Your task to perform on an android device: check out phone information Image 0: 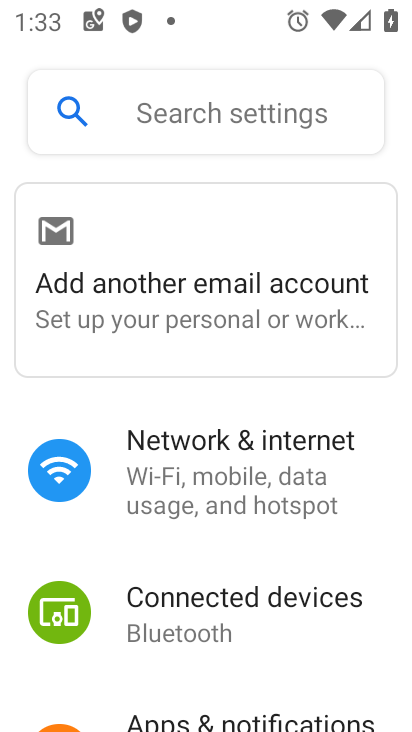
Step 0: drag from (214, 541) to (254, 448)
Your task to perform on an android device: check out phone information Image 1: 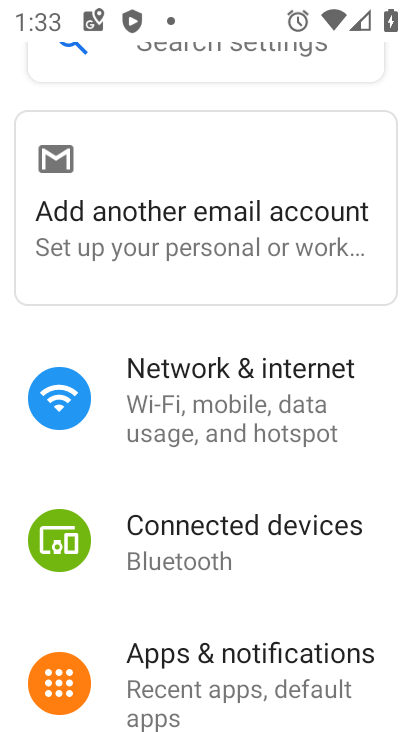
Step 1: drag from (245, 574) to (297, 462)
Your task to perform on an android device: check out phone information Image 2: 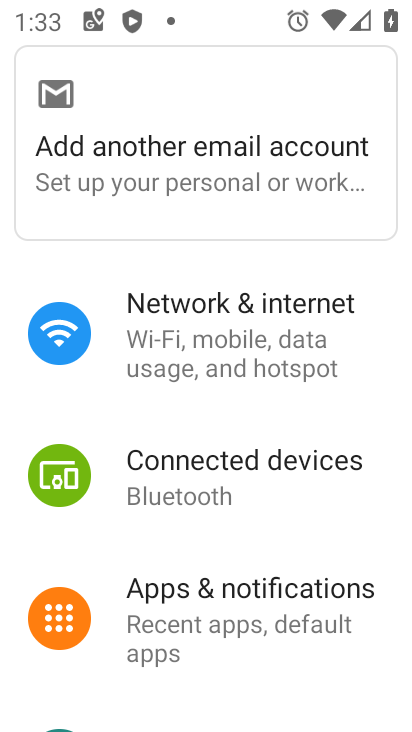
Step 2: drag from (260, 531) to (305, 457)
Your task to perform on an android device: check out phone information Image 3: 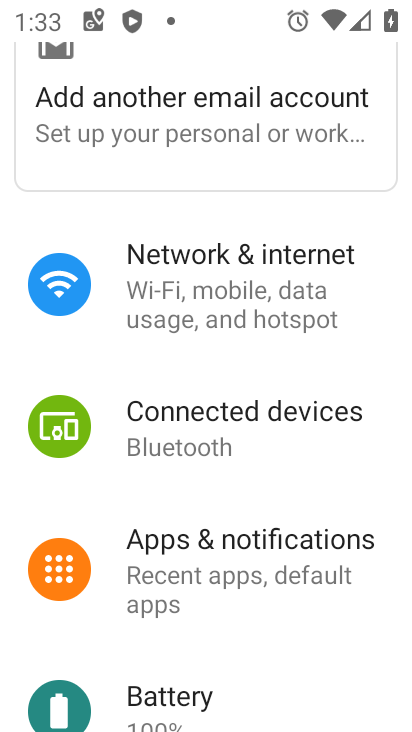
Step 3: drag from (268, 495) to (288, 401)
Your task to perform on an android device: check out phone information Image 4: 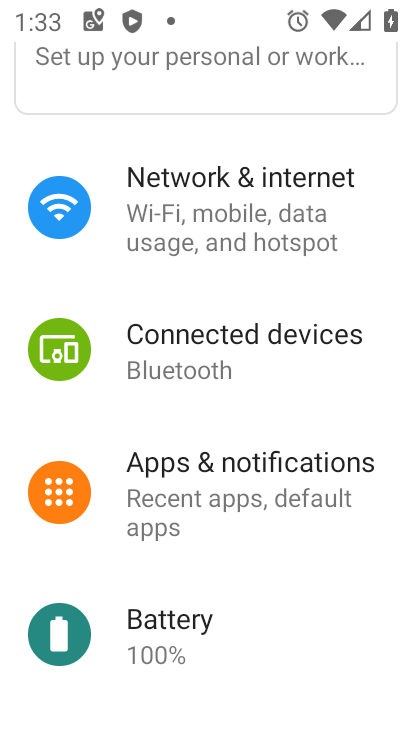
Step 4: drag from (224, 553) to (266, 455)
Your task to perform on an android device: check out phone information Image 5: 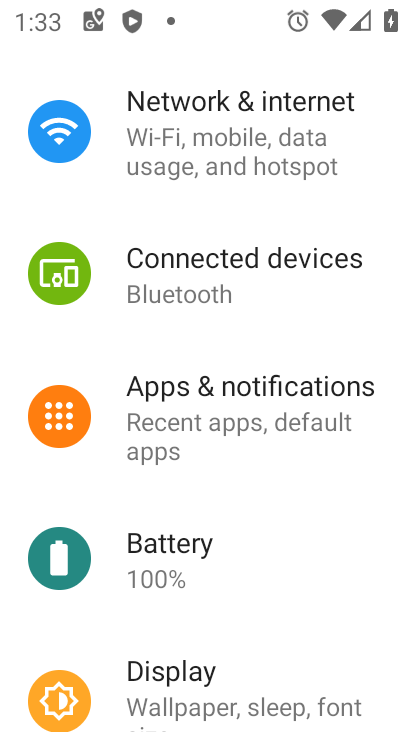
Step 5: drag from (178, 616) to (207, 531)
Your task to perform on an android device: check out phone information Image 6: 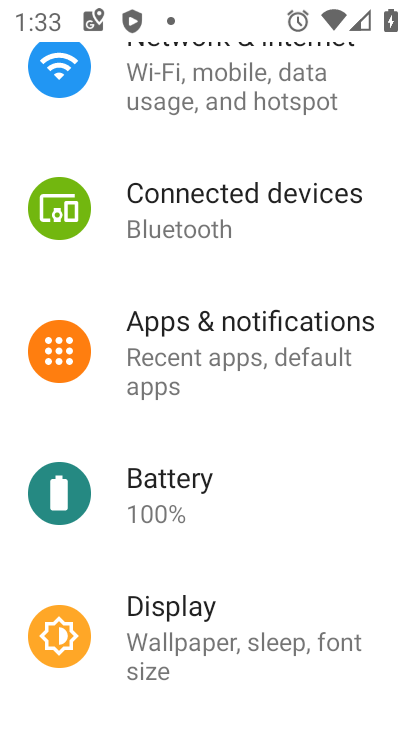
Step 6: drag from (188, 574) to (254, 456)
Your task to perform on an android device: check out phone information Image 7: 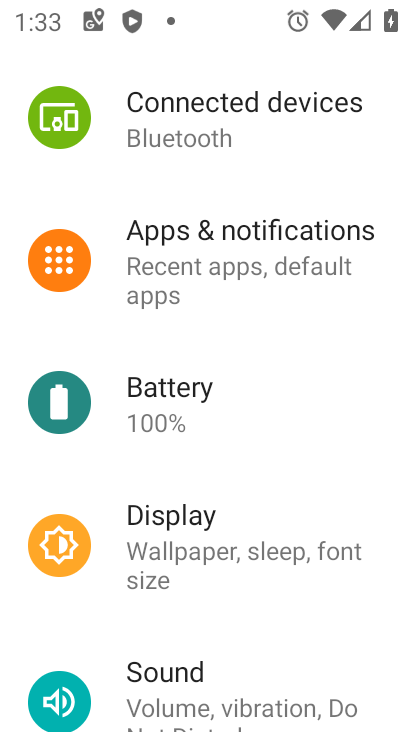
Step 7: drag from (210, 609) to (289, 461)
Your task to perform on an android device: check out phone information Image 8: 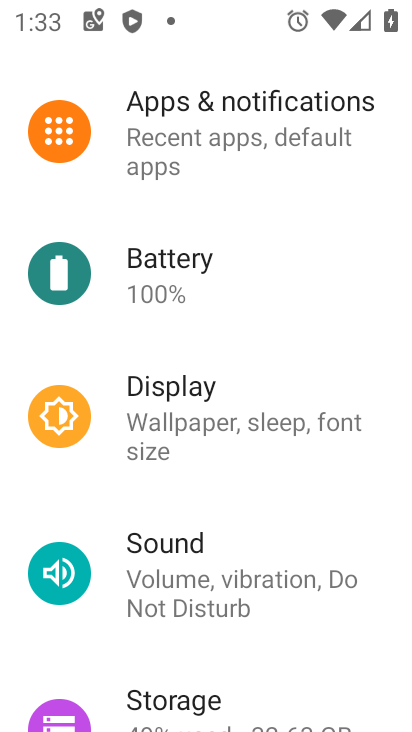
Step 8: drag from (189, 645) to (255, 507)
Your task to perform on an android device: check out phone information Image 9: 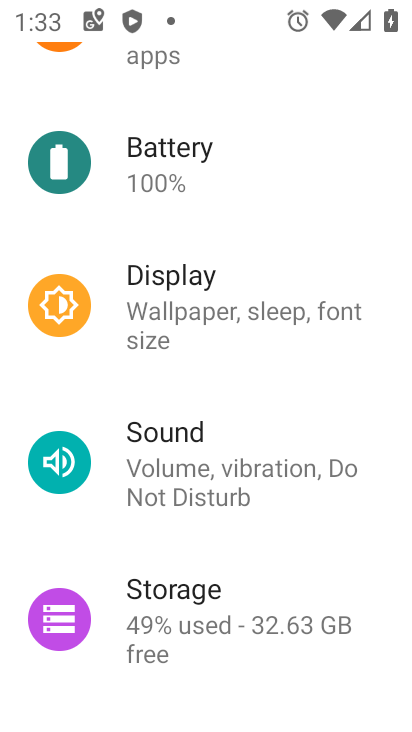
Step 9: drag from (188, 570) to (217, 441)
Your task to perform on an android device: check out phone information Image 10: 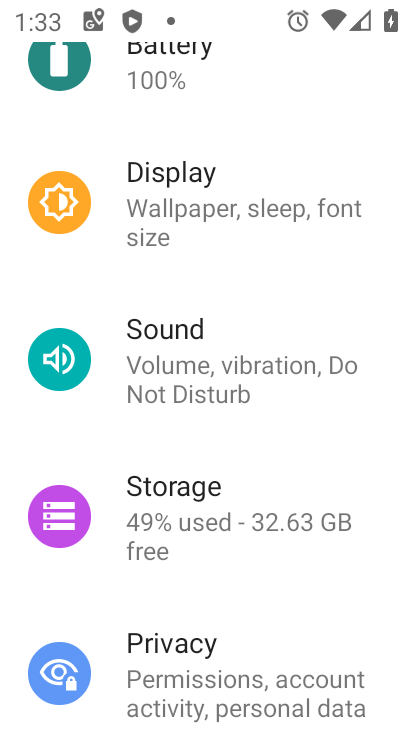
Step 10: drag from (169, 608) to (232, 484)
Your task to perform on an android device: check out phone information Image 11: 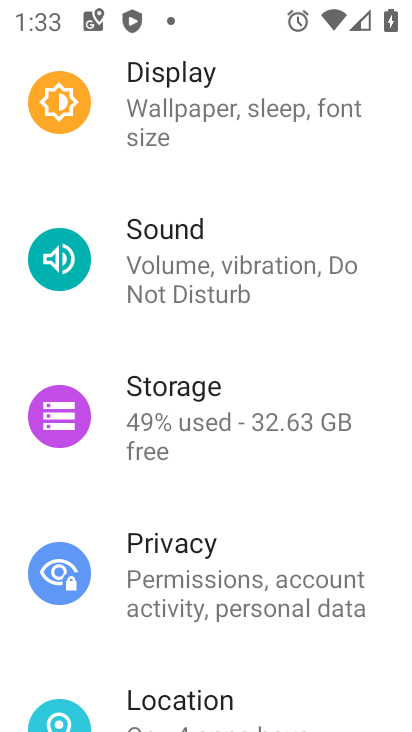
Step 11: drag from (171, 508) to (222, 348)
Your task to perform on an android device: check out phone information Image 12: 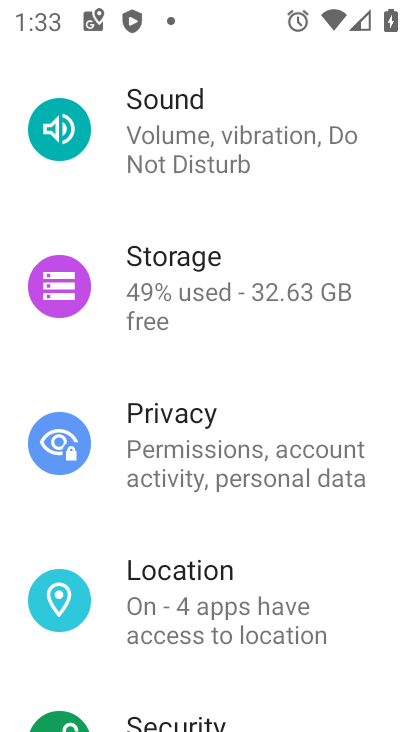
Step 12: drag from (147, 536) to (230, 416)
Your task to perform on an android device: check out phone information Image 13: 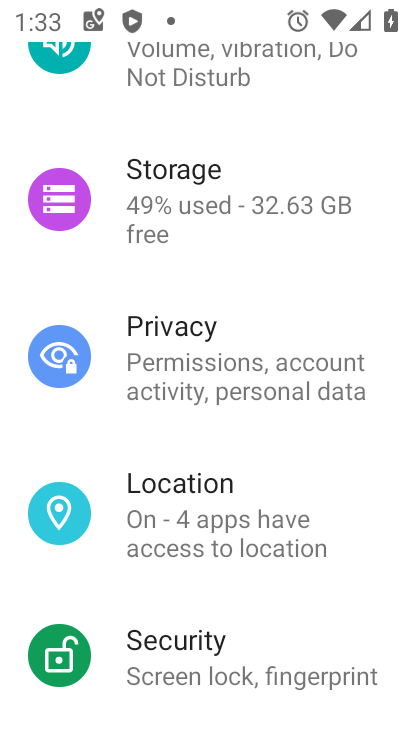
Step 13: drag from (167, 444) to (229, 346)
Your task to perform on an android device: check out phone information Image 14: 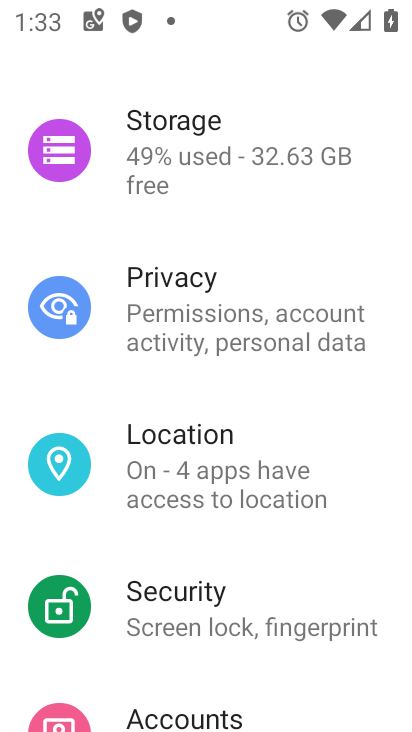
Step 14: drag from (150, 559) to (216, 418)
Your task to perform on an android device: check out phone information Image 15: 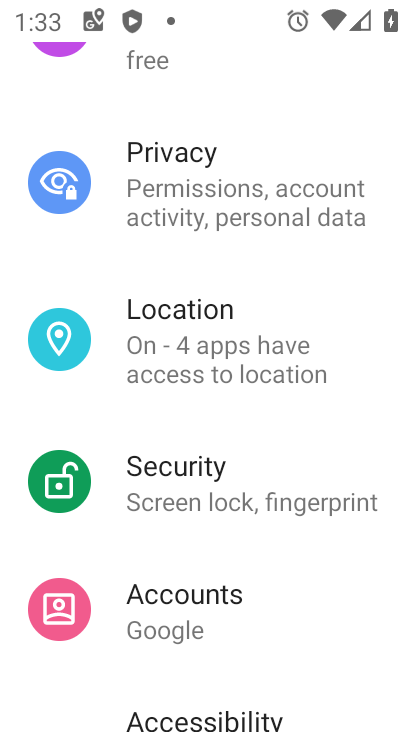
Step 15: drag from (156, 534) to (239, 379)
Your task to perform on an android device: check out phone information Image 16: 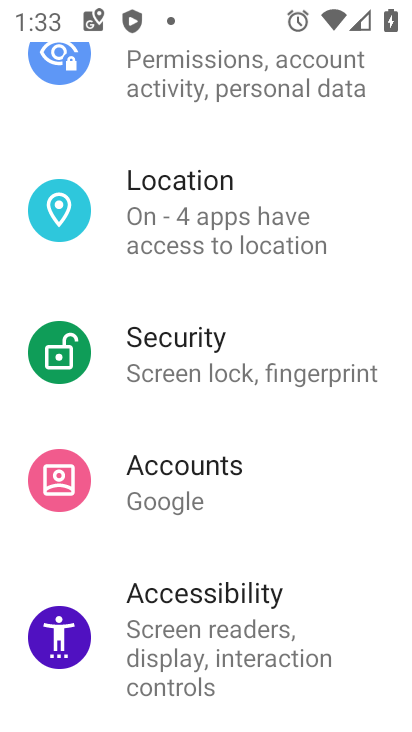
Step 16: drag from (149, 532) to (243, 365)
Your task to perform on an android device: check out phone information Image 17: 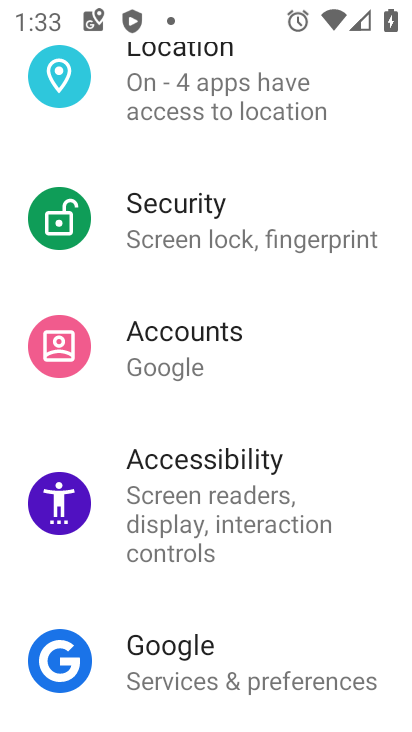
Step 17: drag from (173, 412) to (236, 313)
Your task to perform on an android device: check out phone information Image 18: 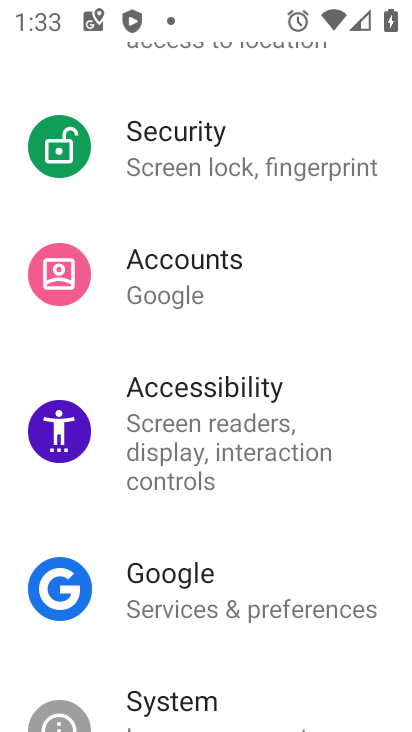
Step 18: drag from (129, 525) to (214, 402)
Your task to perform on an android device: check out phone information Image 19: 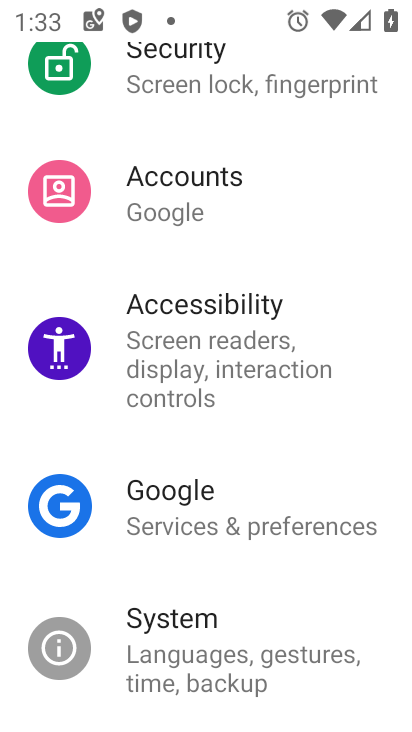
Step 19: drag from (155, 454) to (239, 333)
Your task to perform on an android device: check out phone information Image 20: 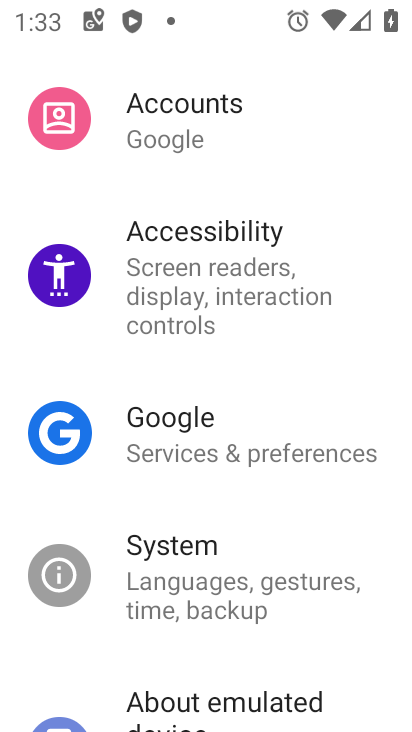
Step 20: drag from (150, 499) to (254, 379)
Your task to perform on an android device: check out phone information Image 21: 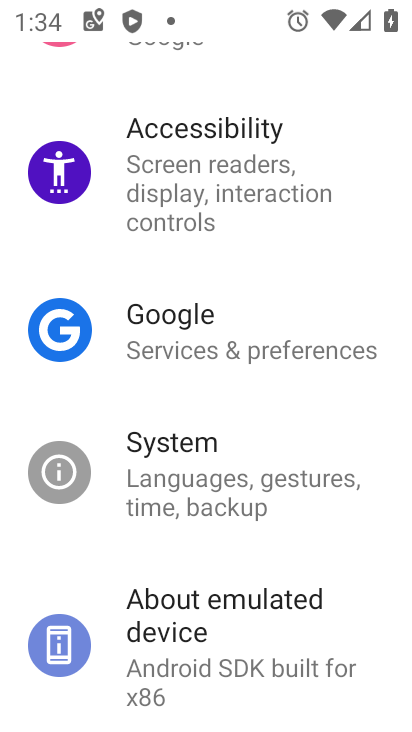
Step 21: click (199, 600)
Your task to perform on an android device: check out phone information Image 22: 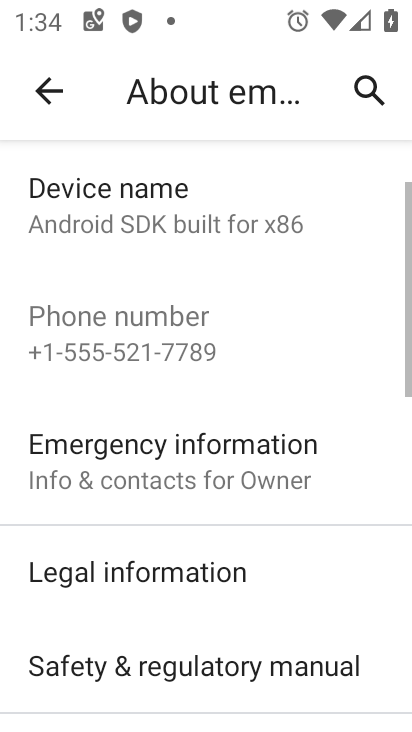
Step 22: task complete